Your task to perform on an android device: Show me popular videos on Youtube Image 0: 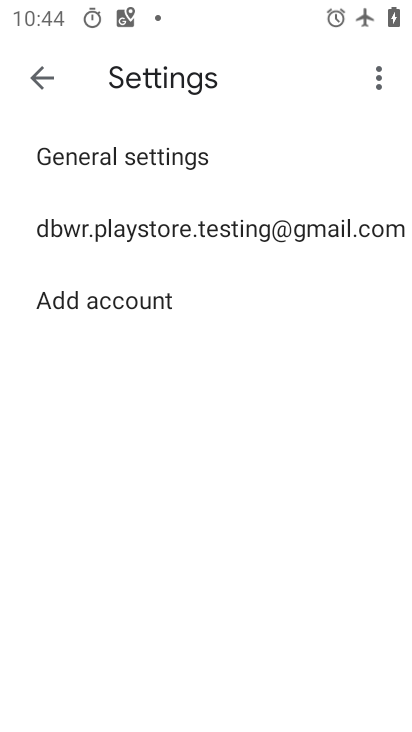
Step 0: press home button
Your task to perform on an android device: Show me popular videos on Youtube Image 1: 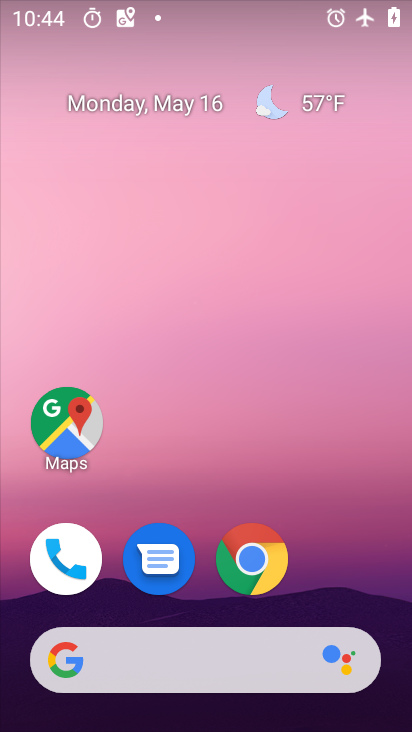
Step 1: drag from (340, 565) to (198, 163)
Your task to perform on an android device: Show me popular videos on Youtube Image 2: 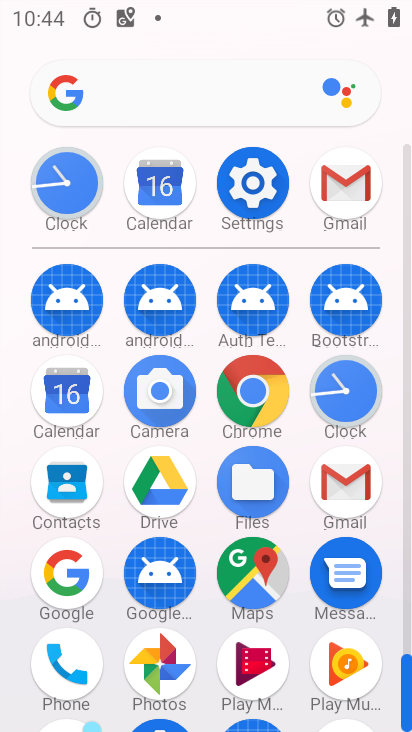
Step 2: drag from (204, 616) to (170, 319)
Your task to perform on an android device: Show me popular videos on Youtube Image 3: 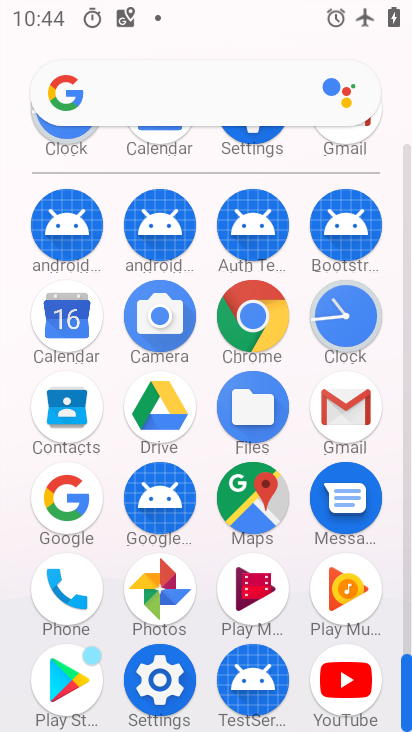
Step 3: click (351, 682)
Your task to perform on an android device: Show me popular videos on Youtube Image 4: 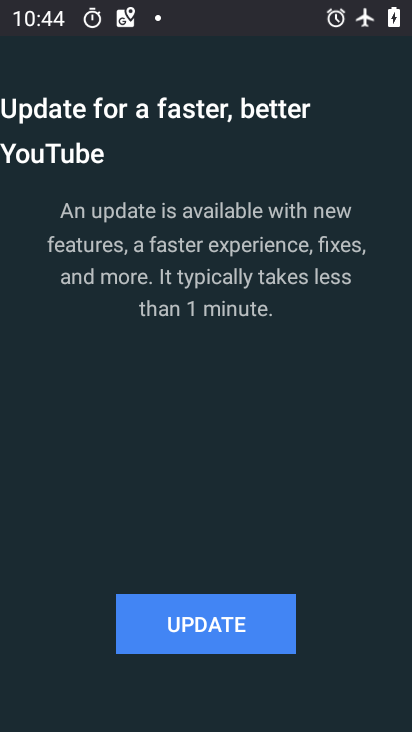
Step 4: click (210, 606)
Your task to perform on an android device: Show me popular videos on Youtube Image 5: 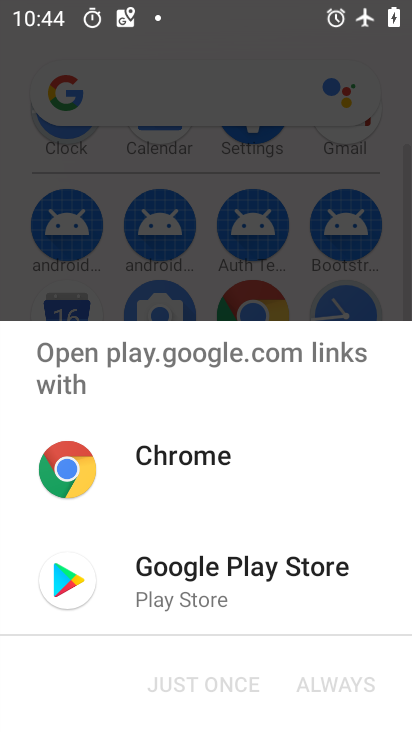
Step 5: click (208, 604)
Your task to perform on an android device: Show me popular videos on Youtube Image 6: 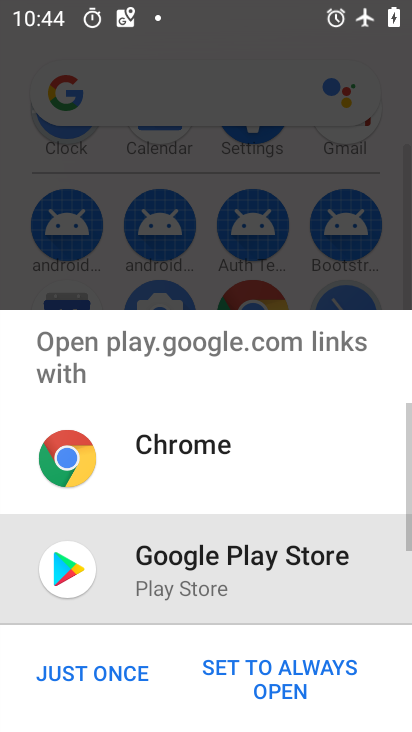
Step 6: click (108, 669)
Your task to perform on an android device: Show me popular videos on Youtube Image 7: 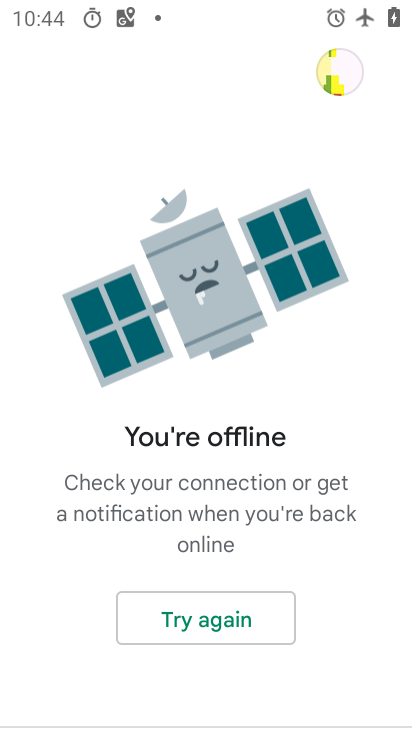
Step 7: task complete